Your task to perform on an android device: find photos in the google photos app Image 0: 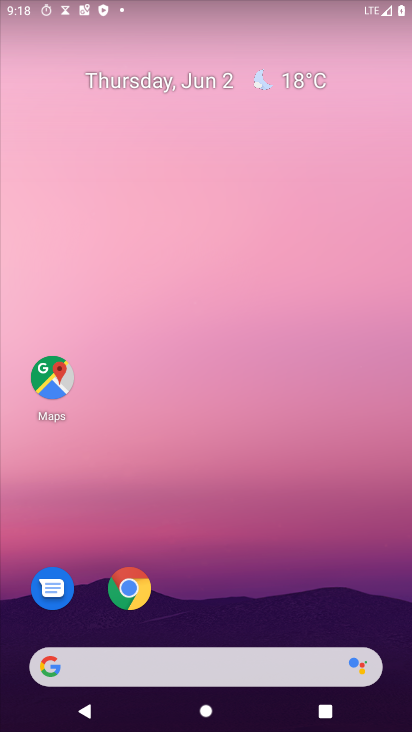
Step 0: drag from (233, 570) to (269, 124)
Your task to perform on an android device: find photos in the google photos app Image 1: 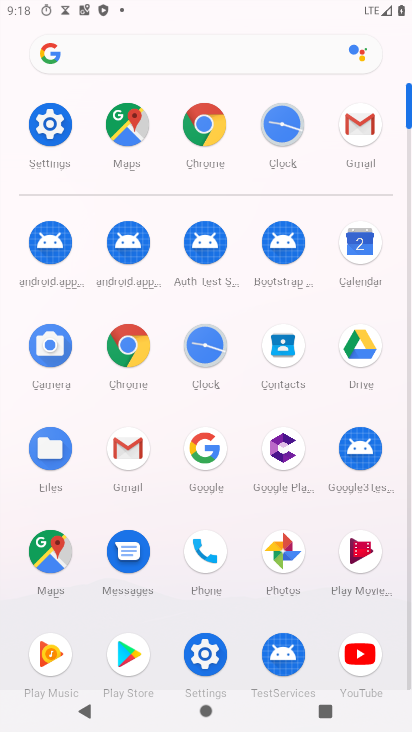
Step 1: click (279, 561)
Your task to perform on an android device: find photos in the google photos app Image 2: 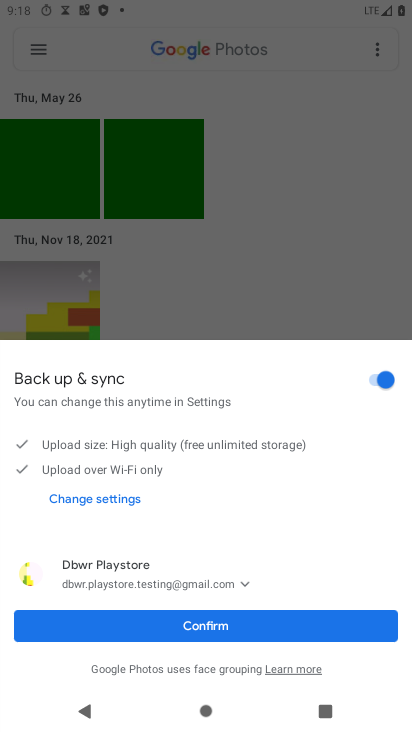
Step 2: click (235, 623)
Your task to perform on an android device: find photos in the google photos app Image 3: 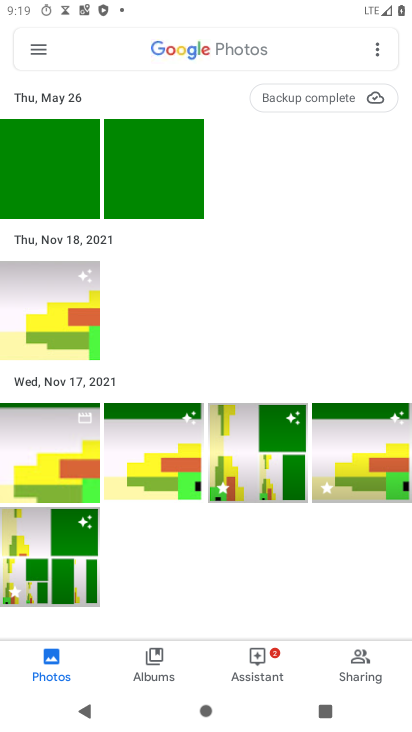
Step 3: click (50, 674)
Your task to perform on an android device: find photos in the google photos app Image 4: 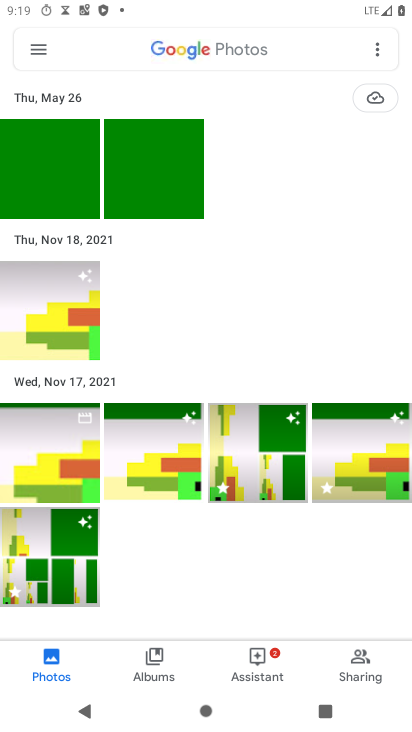
Step 4: task complete